Your task to perform on an android device: Show me recent news Image 0: 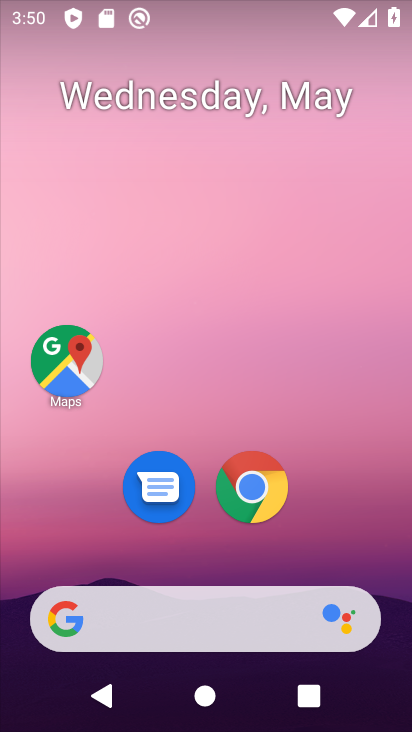
Step 0: drag from (184, 661) to (250, 187)
Your task to perform on an android device: Show me recent news Image 1: 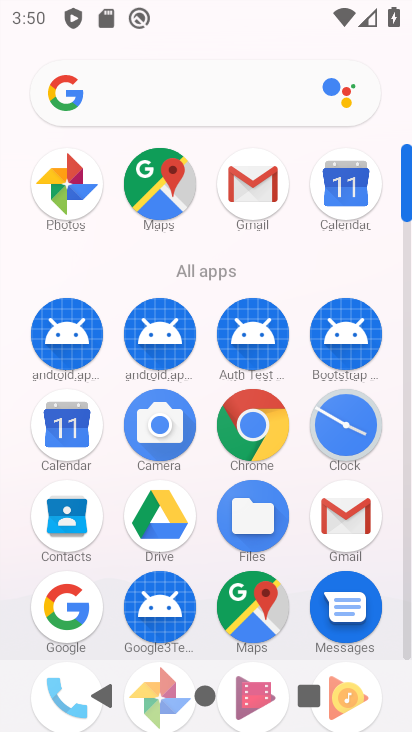
Step 1: click (161, 110)
Your task to perform on an android device: Show me recent news Image 2: 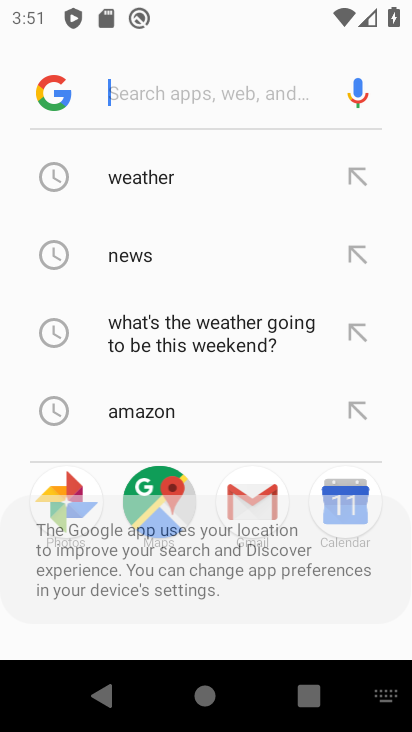
Step 2: click (398, 687)
Your task to perform on an android device: Show me recent news Image 3: 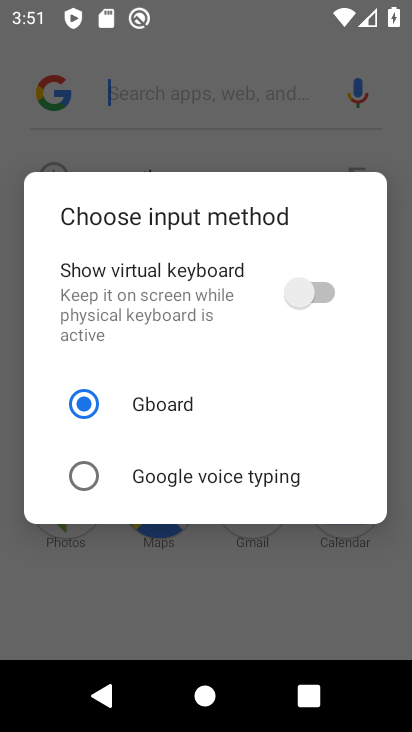
Step 3: click (314, 283)
Your task to perform on an android device: Show me recent news Image 4: 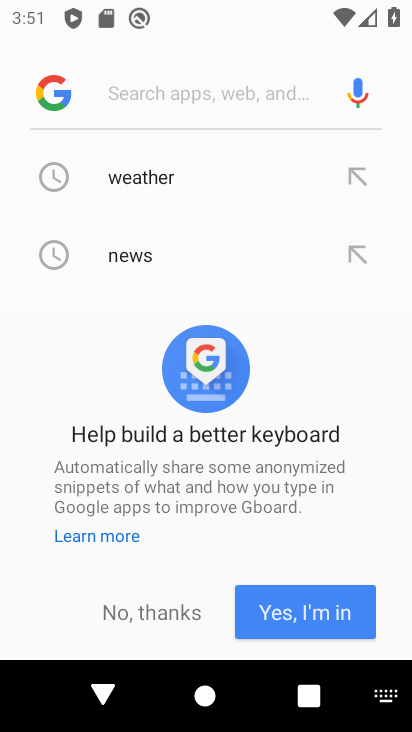
Step 4: click (123, 607)
Your task to perform on an android device: Show me recent news Image 5: 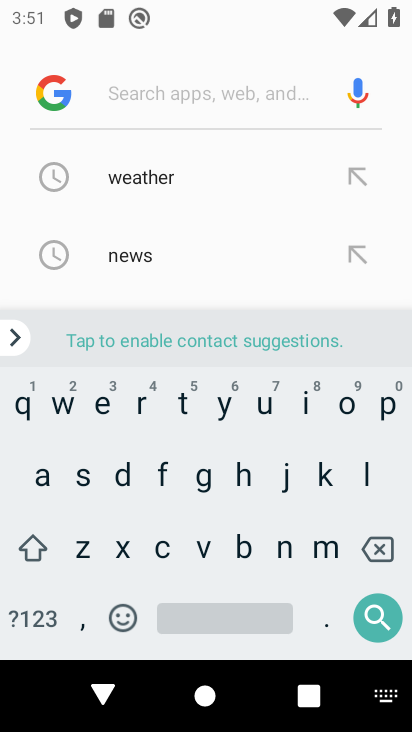
Step 5: click (131, 413)
Your task to perform on an android device: Show me recent news Image 6: 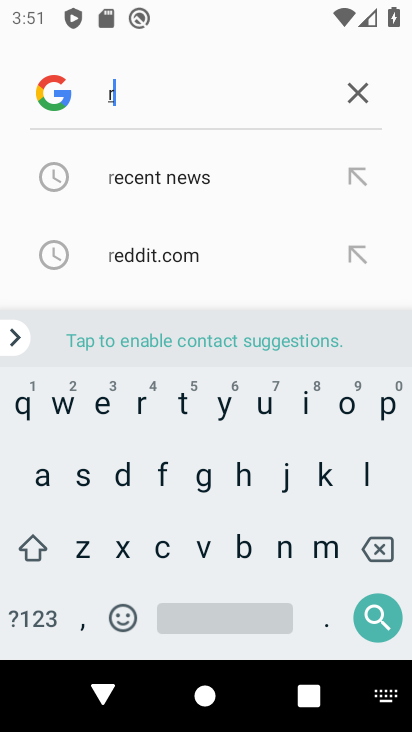
Step 6: click (175, 175)
Your task to perform on an android device: Show me recent news Image 7: 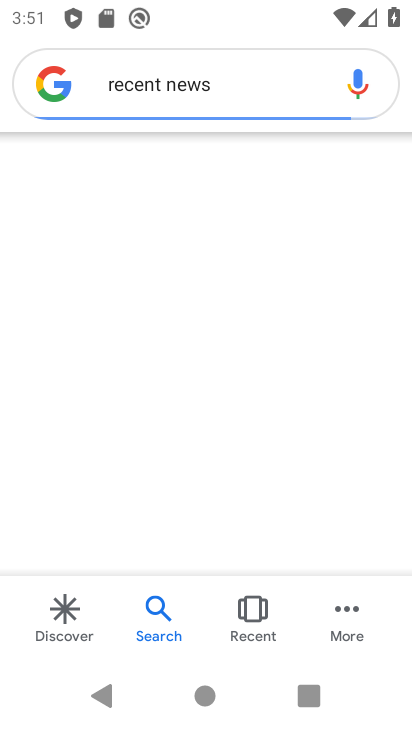
Step 7: task complete